Your task to perform on an android device: turn on wifi Image 0: 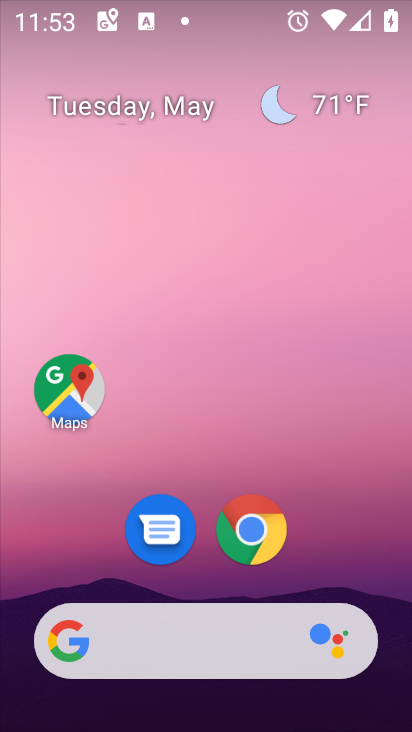
Step 0: drag from (263, 600) to (317, 350)
Your task to perform on an android device: turn on wifi Image 1: 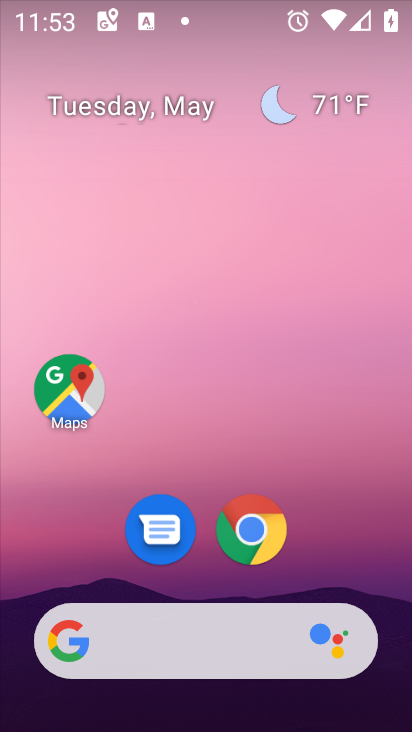
Step 1: drag from (255, 577) to (253, 275)
Your task to perform on an android device: turn on wifi Image 2: 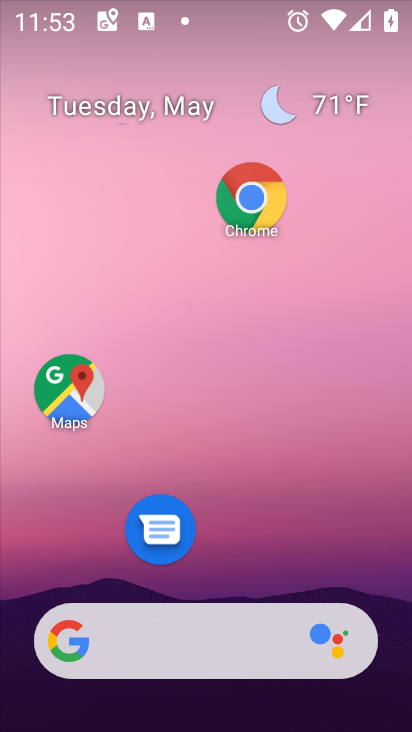
Step 2: drag from (259, 448) to (217, 156)
Your task to perform on an android device: turn on wifi Image 3: 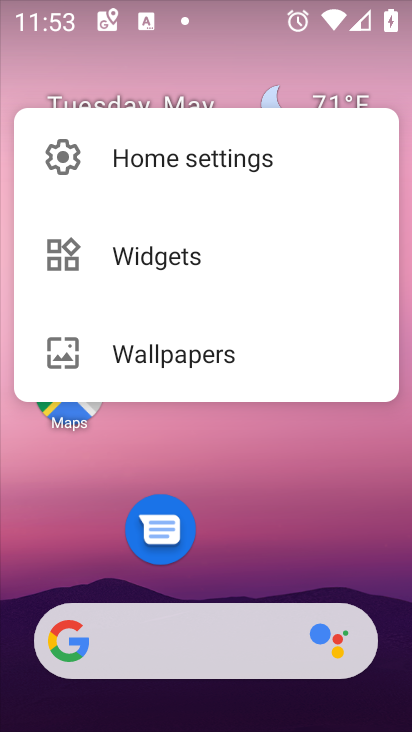
Step 3: click (244, 520)
Your task to perform on an android device: turn on wifi Image 4: 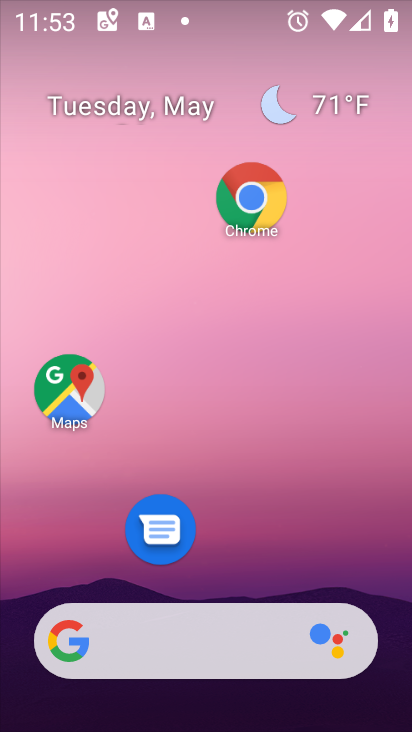
Step 4: drag from (229, 593) to (320, 212)
Your task to perform on an android device: turn on wifi Image 5: 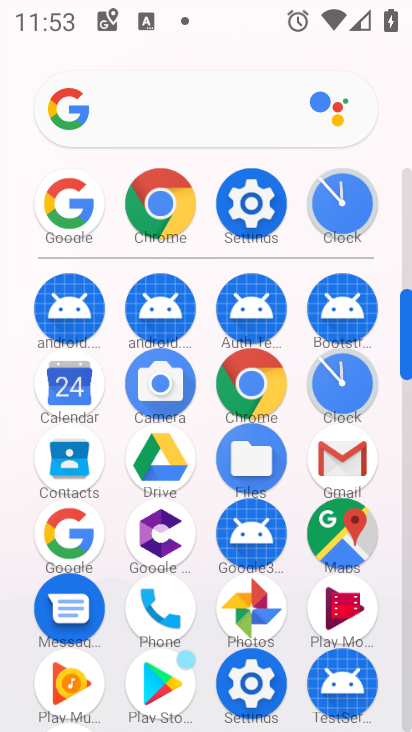
Step 5: click (254, 222)
Your task to perform on an android device: turn on wifi Image 6: 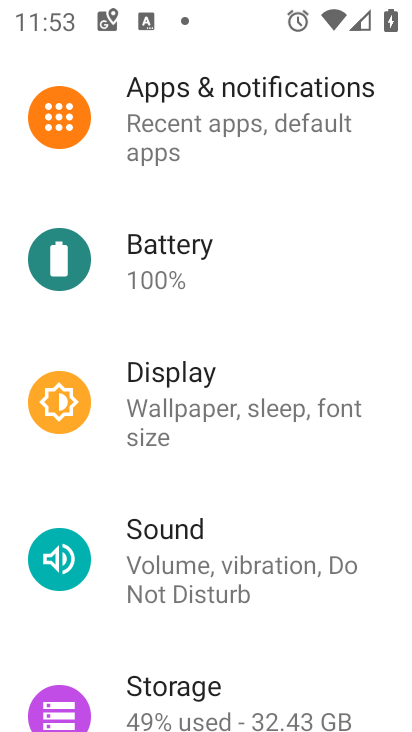
Step 6: drag from (254, 222) to (235, 298)
Your task to perform on an android device: turn on wifi Image 7: 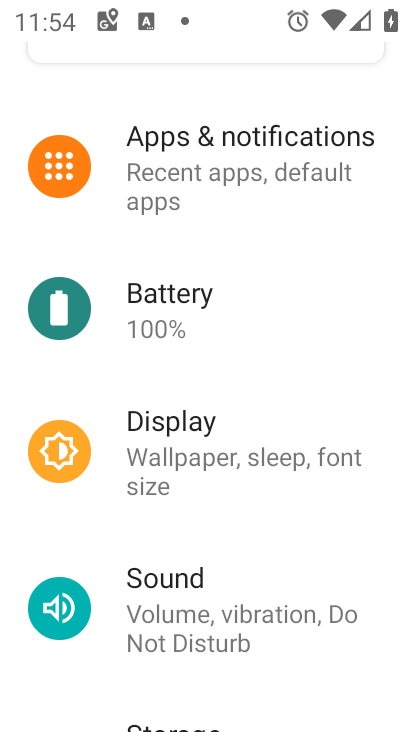
Step 7: click (234, 240)
Your task to perform on an android device: turn on wifi Image 8: 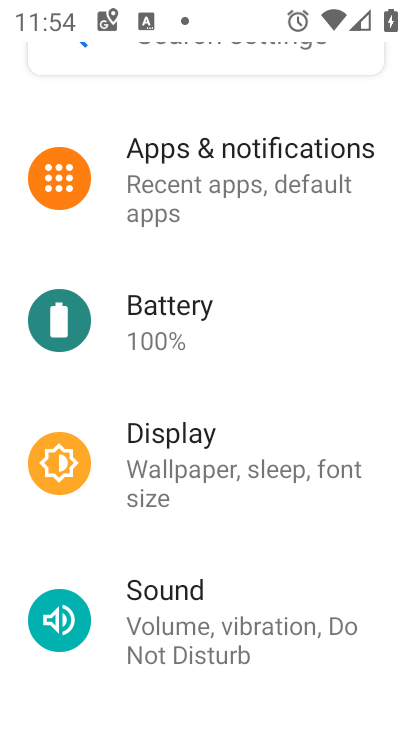
Step 8: drag from (232, 192) to (227, 319)
Your task to perform on an android device: turn on wifi Image 9: 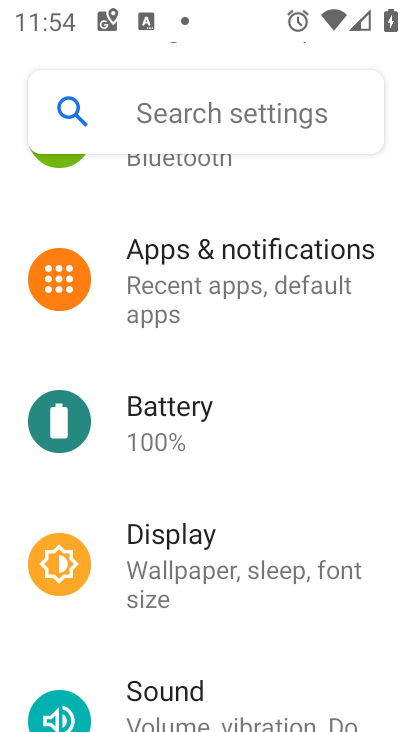
Step 9: drag from (200, 209) to (198, 294)
Your task to perform on an android device: turn on wifi Image 10: 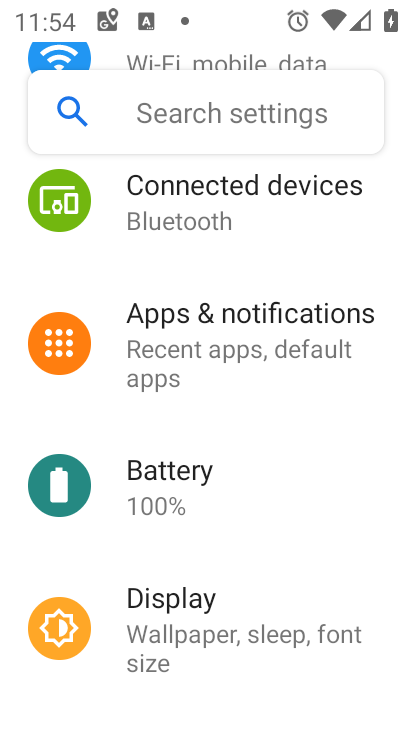
Step 10: drag from (288, 282) to (273, 722)
Your task to perform on an android device: turn on wifi Image 11: 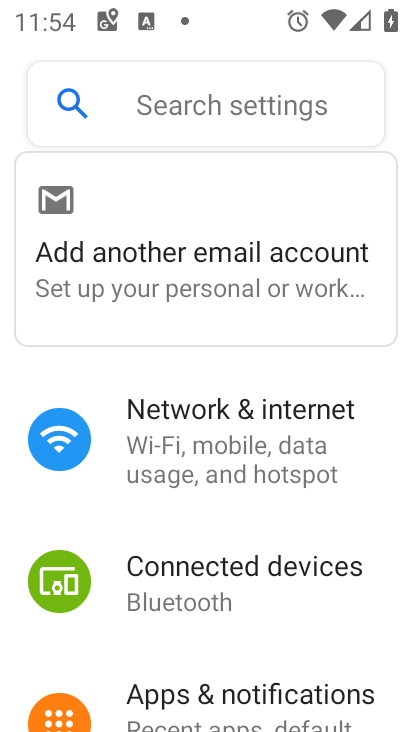
Step 11: click (114, 441)
Your task to perform on an android device: turn on wifi Image 12: 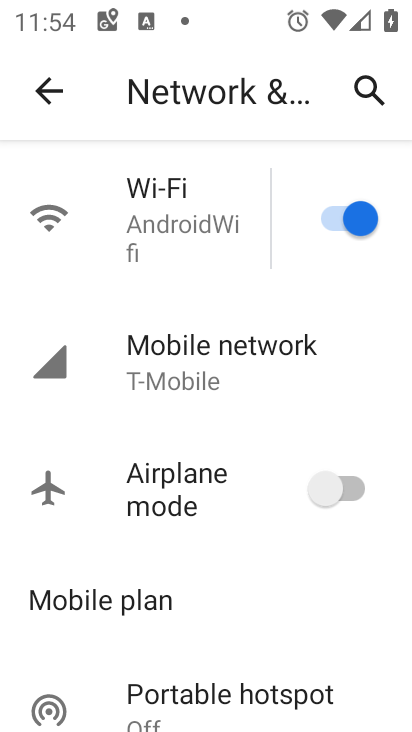
Step 12: click (169, 232)
Your task to perform on an android device: turn on wifi Image 13: 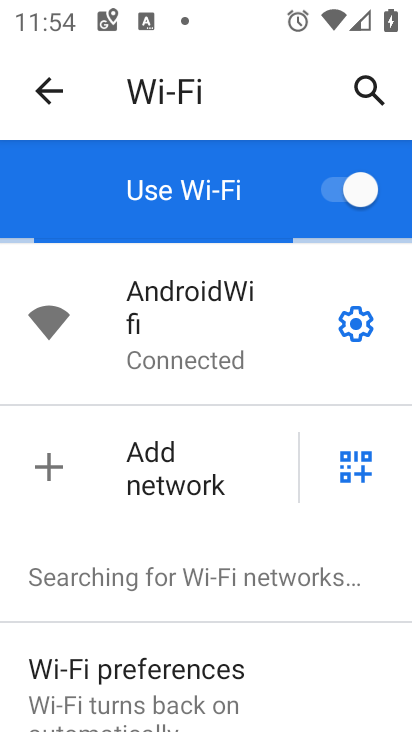
Step 13: task complete